Your task to perform on an android device: move an email to a new category in the gmail app Image 0: 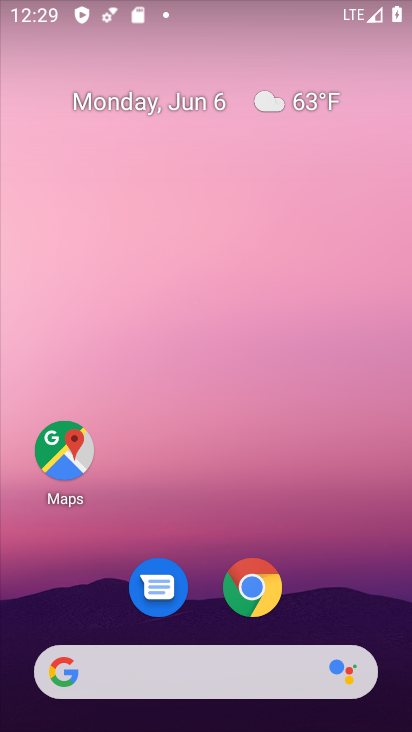
Step 0: drag from (372, 604) to (306, 172)
Your task to perform on an android device: move an email to a new category in the gmail app Image 1: 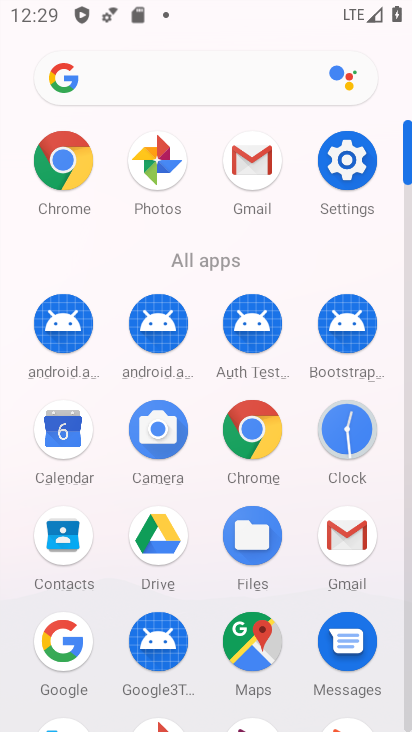
Step 1: click (247, 147)
Your task to perform on an android device: move an email to a new category in the gmail app Image 2: 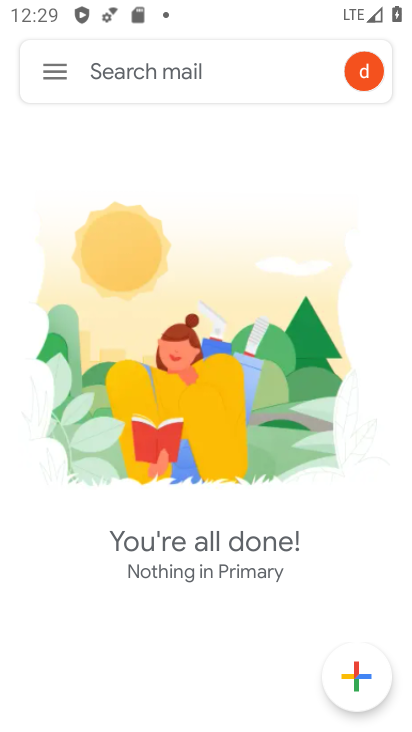
Step 2: task complete